Your task to perform on an android device: open app "Yahoo Mail" Image 0: 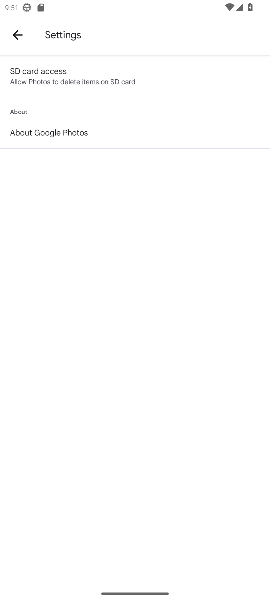
Step 0: press home button
Your task to perform on an android device: open app "Yahoo Mail" Image 1: 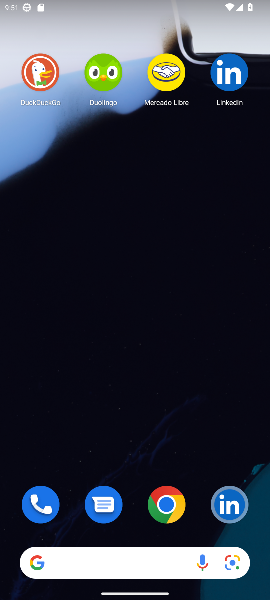
Step 1: drag from (139, 454) to (262, 18)
Your task to perform on an android device: open app "Yahoo Mail" Image 2: 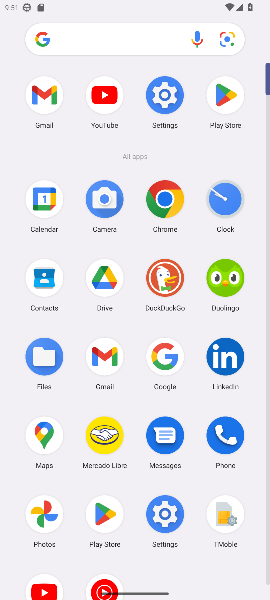
Step 2: click (221, 79)
Your task to perform on an android device: open app "Yahoo Mail" Image 3: 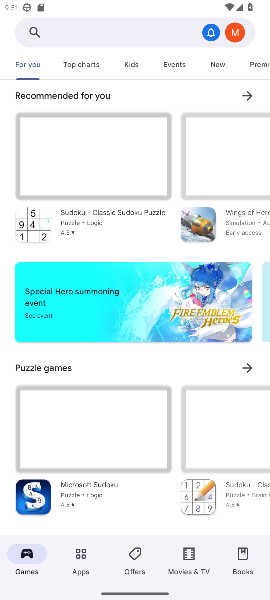
Step 3: click (104, 37)
Your task to perform on an android device: open app "Yahoo Mail" Image 4: 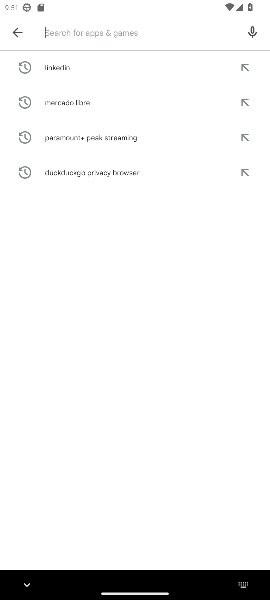
Step 4: type "yahoo mail"
Your task to perform on an android device: open app "Yahoo Mail" Image 5: 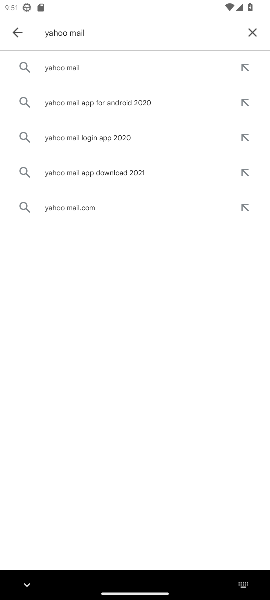
Step 5: click (87, 67)
Your task to perform on an android device: open app "Yahoo Mail" Image 6: 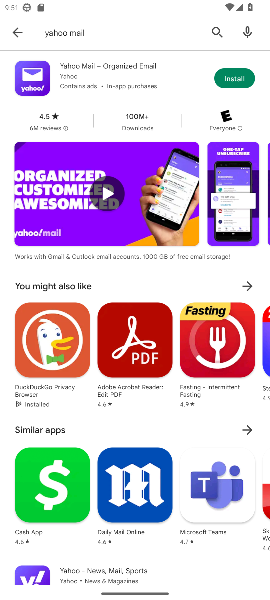
Step 6: click (81, 67)
Your task to perform on an android device: open app "Yahoo Mail" Image 7: 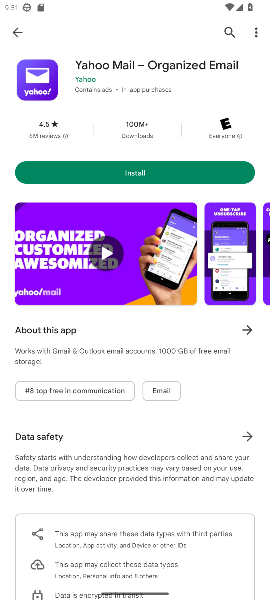
Step 7: task complete